Your task to perform on an android device: Go to notification settings Image 0: 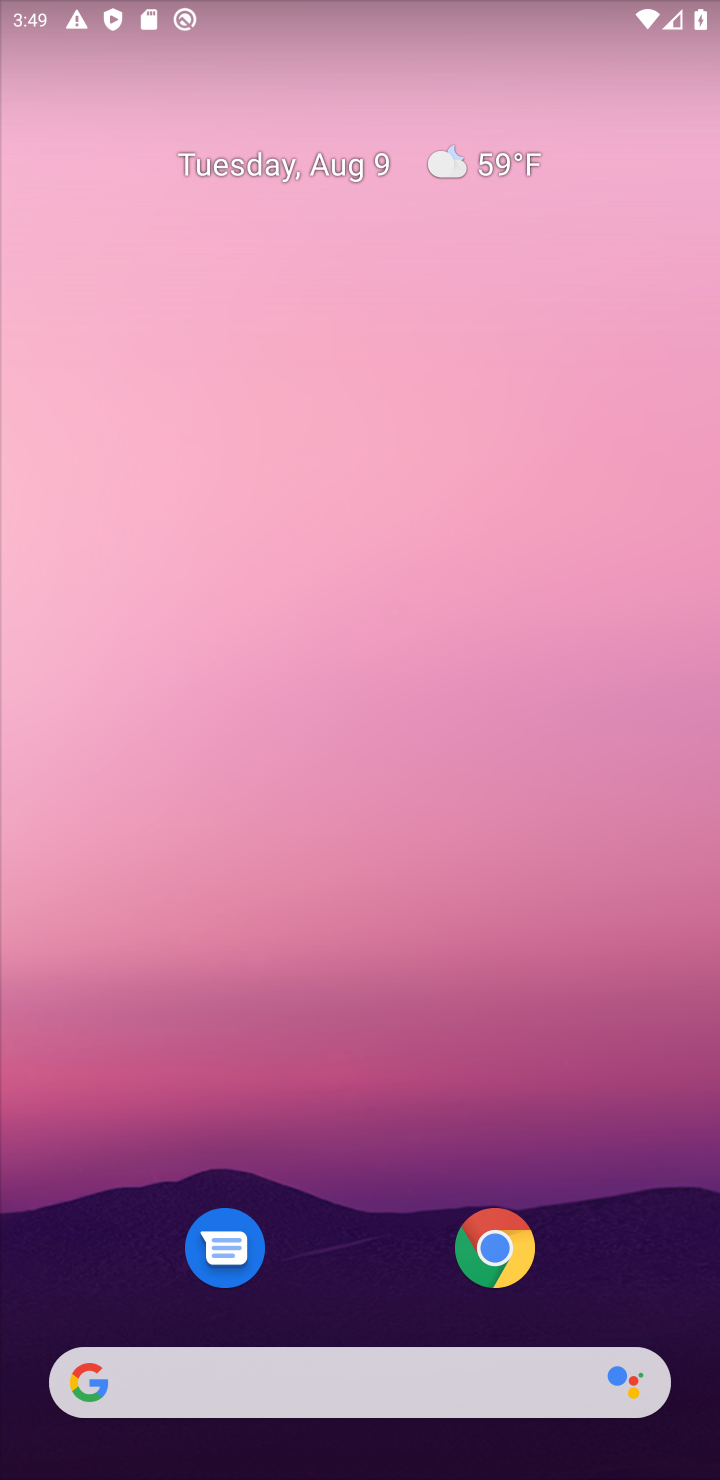
Step 0: drag from (323, 1115) to (7, 796)
Your task to perform on an android device: Go to notification settings Image 1: 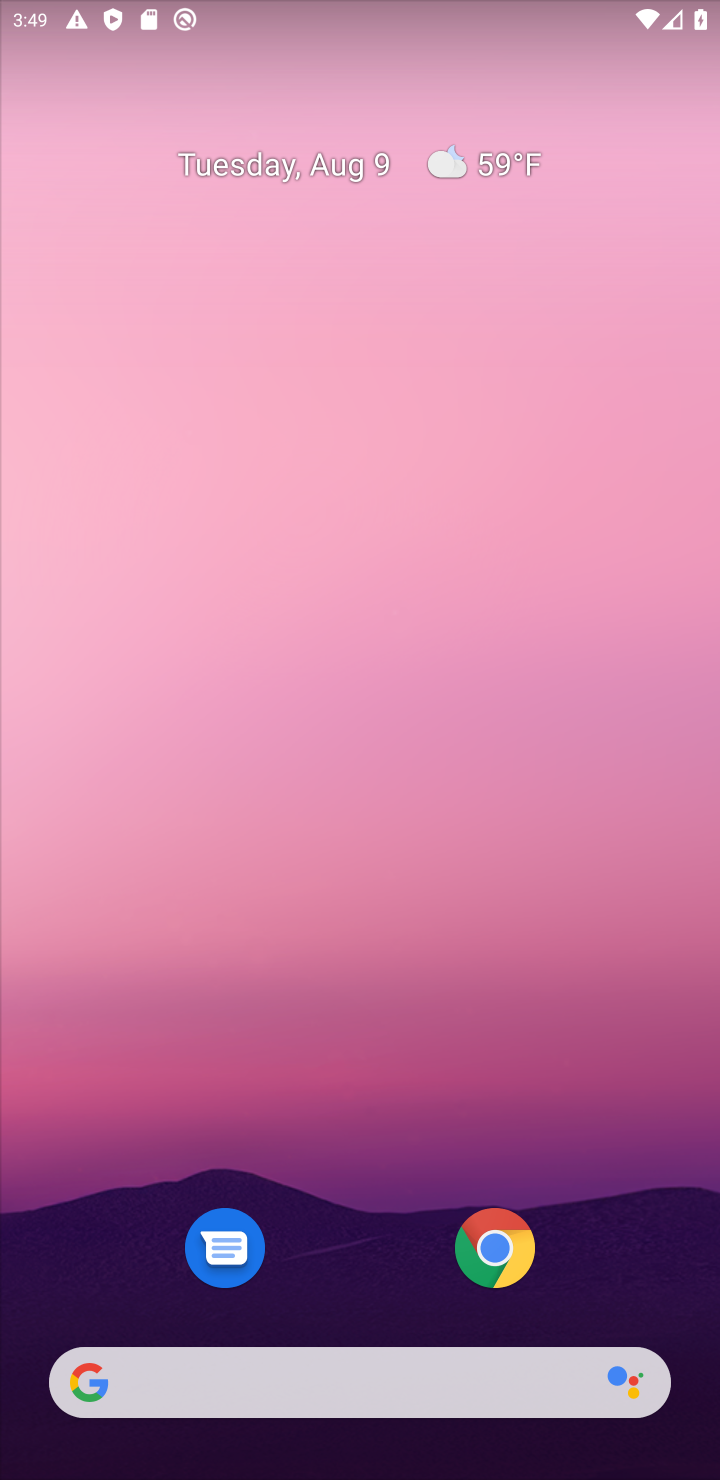
Step 1: drag from (317, 951) to (52, 234)
Your task to perform on an android device: Go to notification settings Image 2: 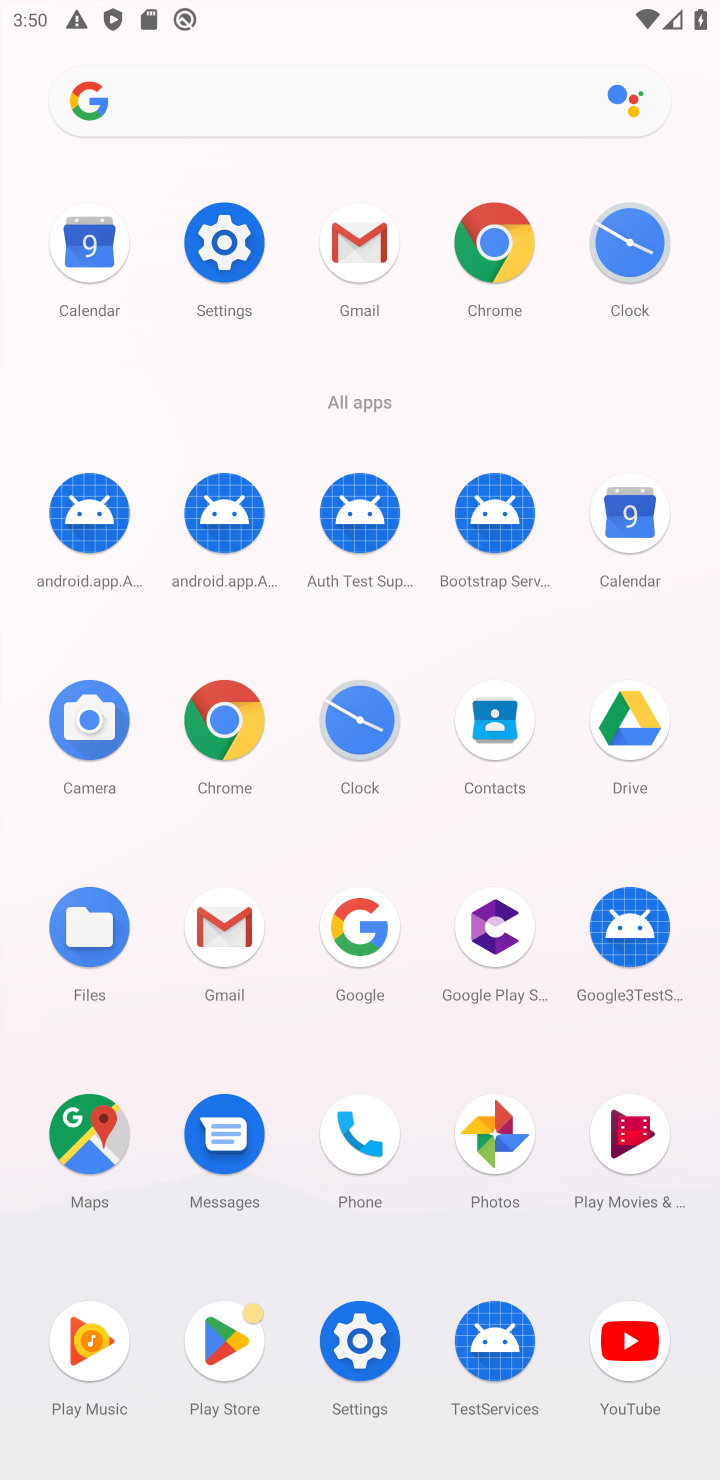
Step 2: click (248, 234)
Your task to perform on an android device: Go to notification settings Image 3: 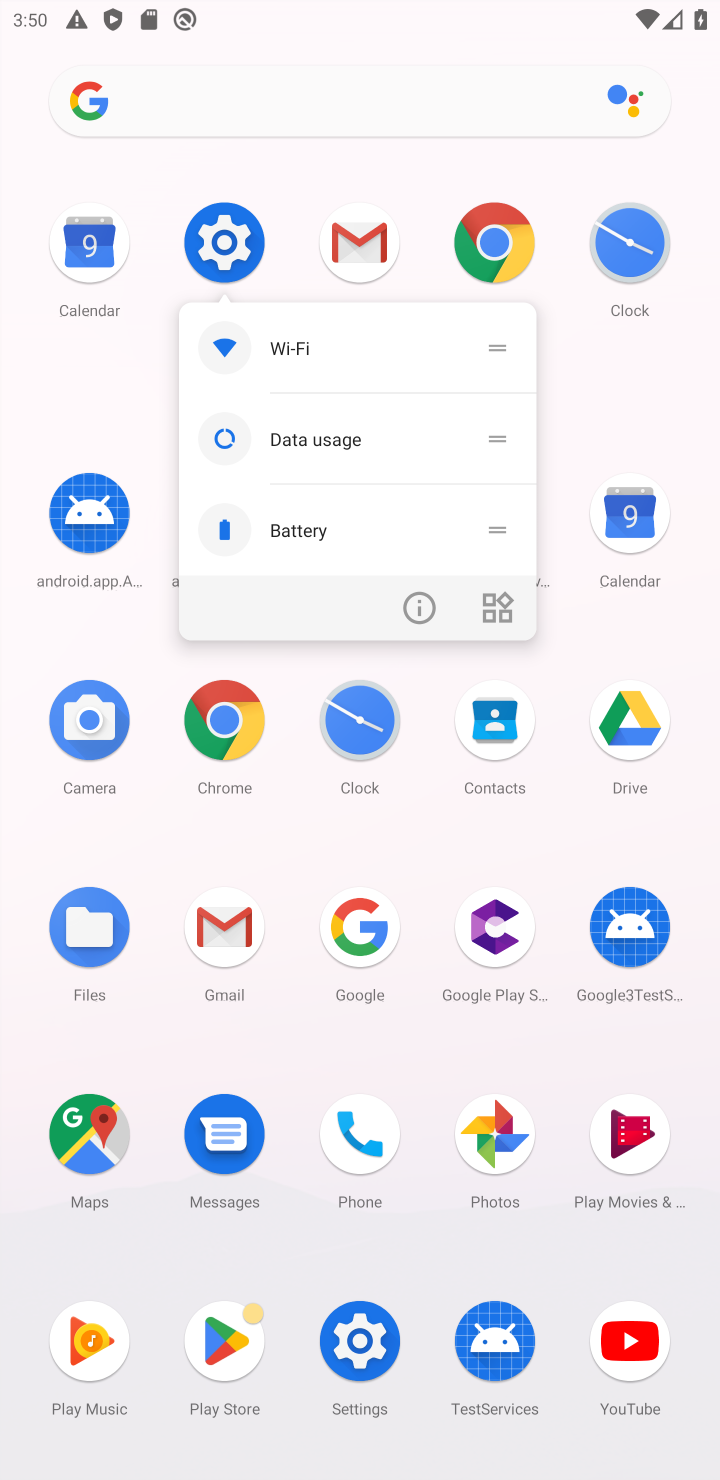
Step 3: click (424, 1237)
Your task to perform on an android device: Go to notification settings Image 4: 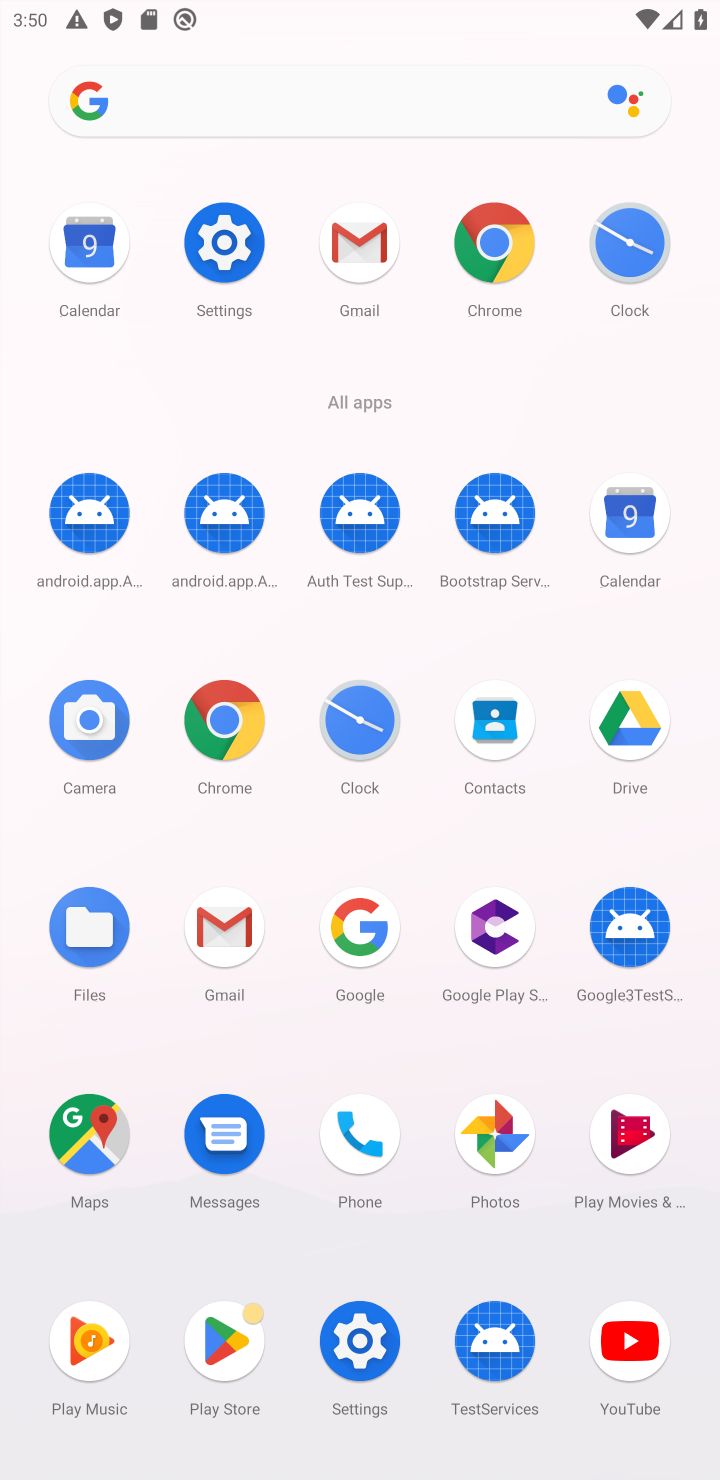
Step 4: click (365, 1342)
Your task to perform on an android device: Go to notification settings Image 5: 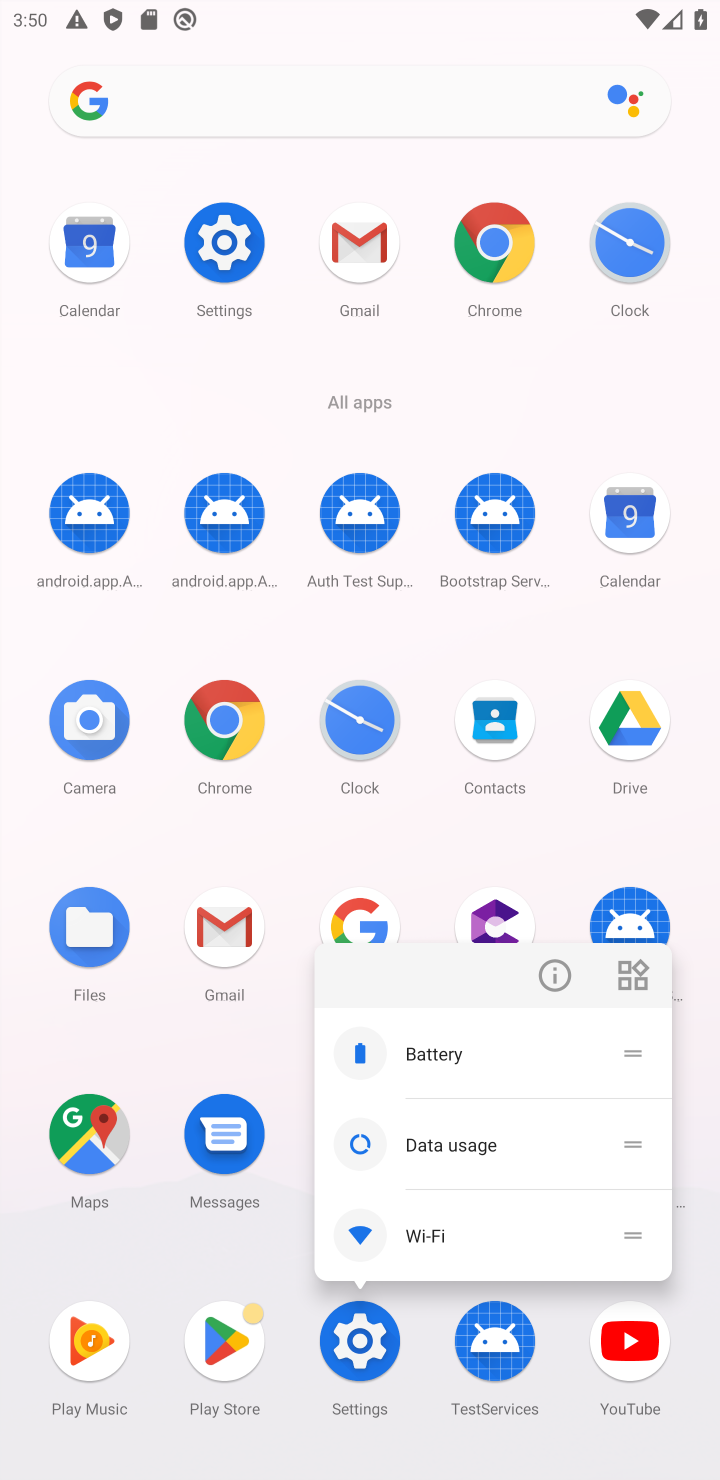
Step 5: click (365, 1342)
Your task to perform on an android device: Go to notification settings Image 6: 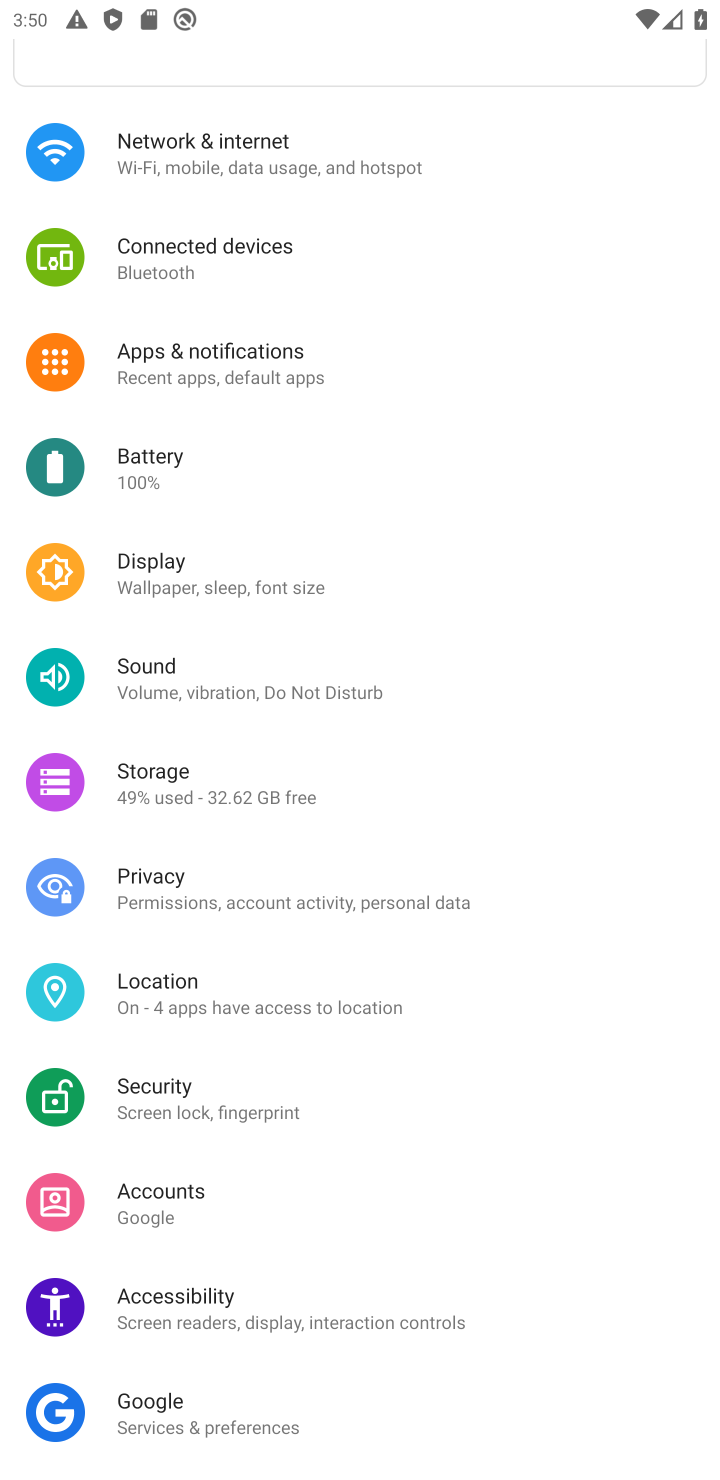
Step 6: click (255, 353)
Your task to perform on an android device: Go to notification settings Image 7: 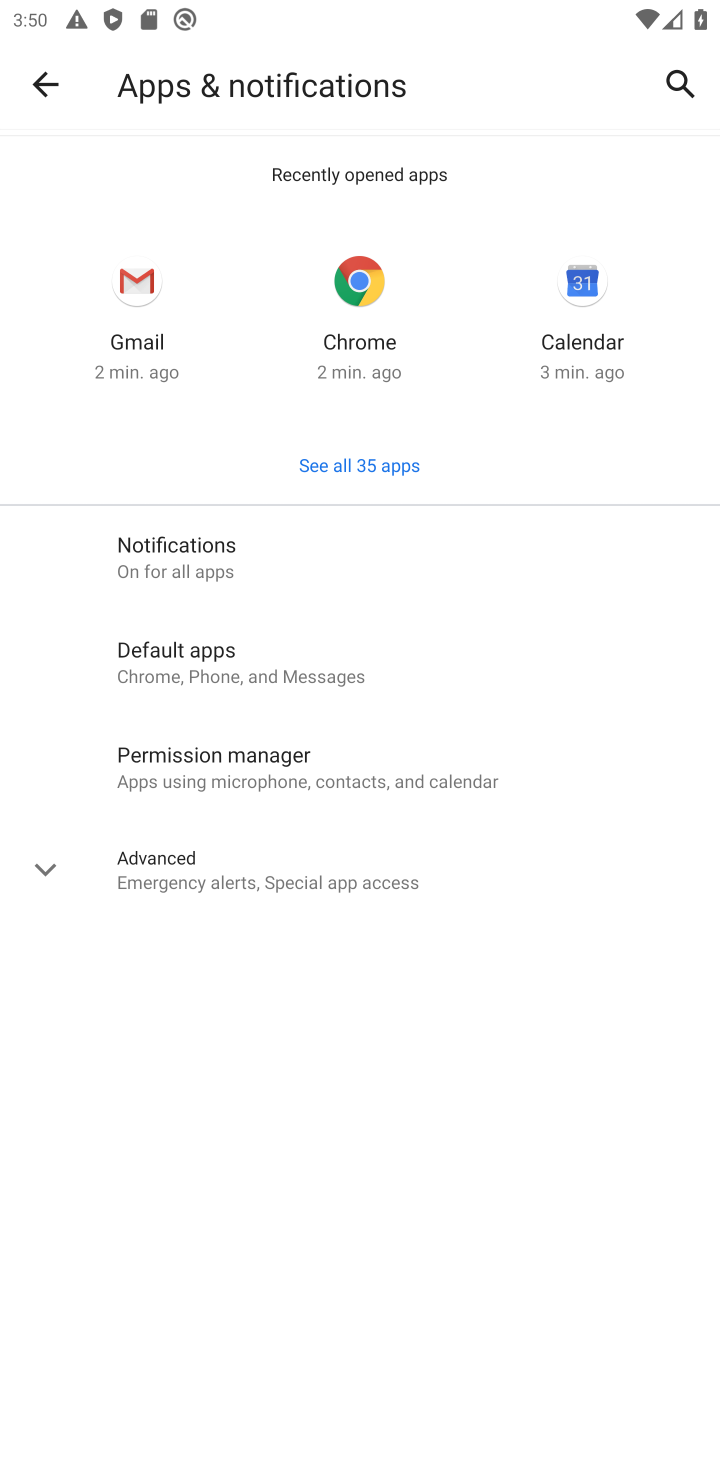
Step 7: click (208, 556)
Your task to perform on an android device: Go to notification settings Image 8: 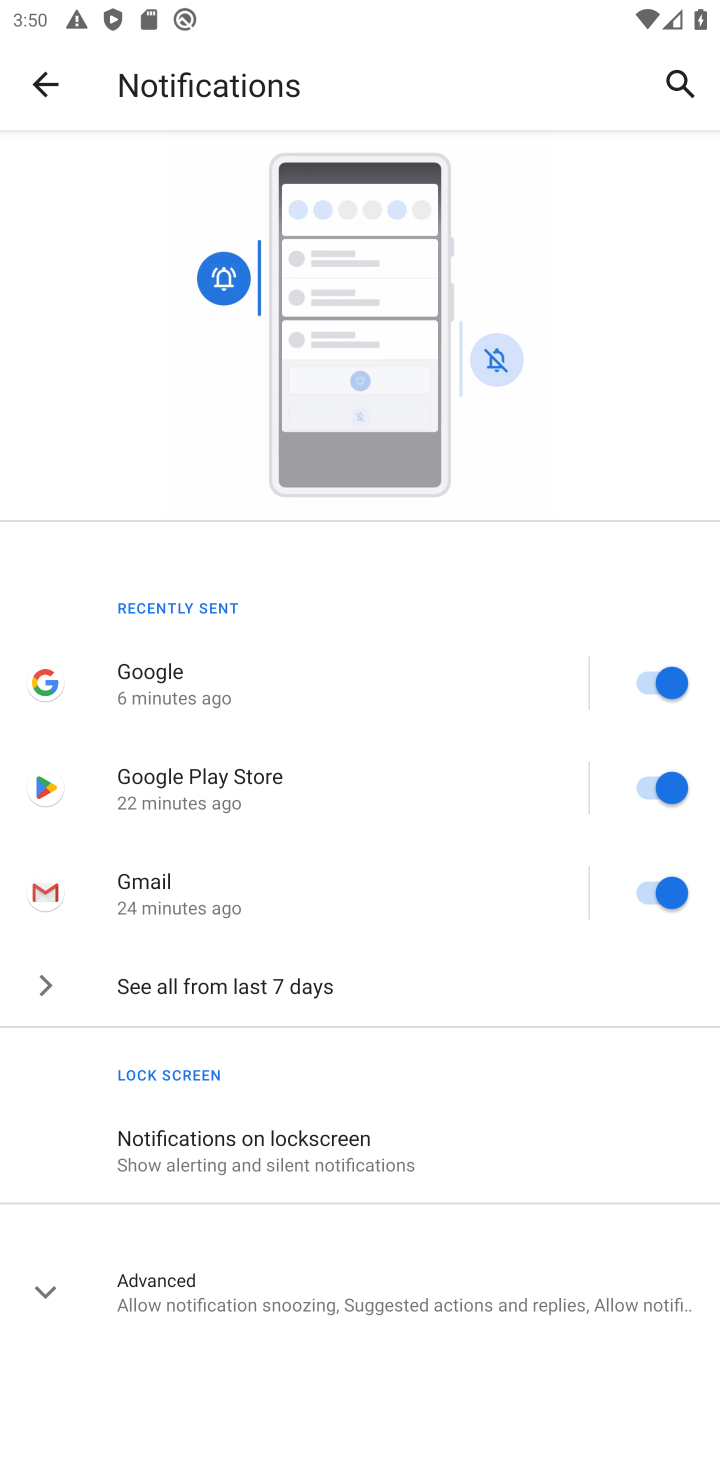
Step 8: task complete